Your task to perform on an android device: turn off data saver in the chrome app Image 0: 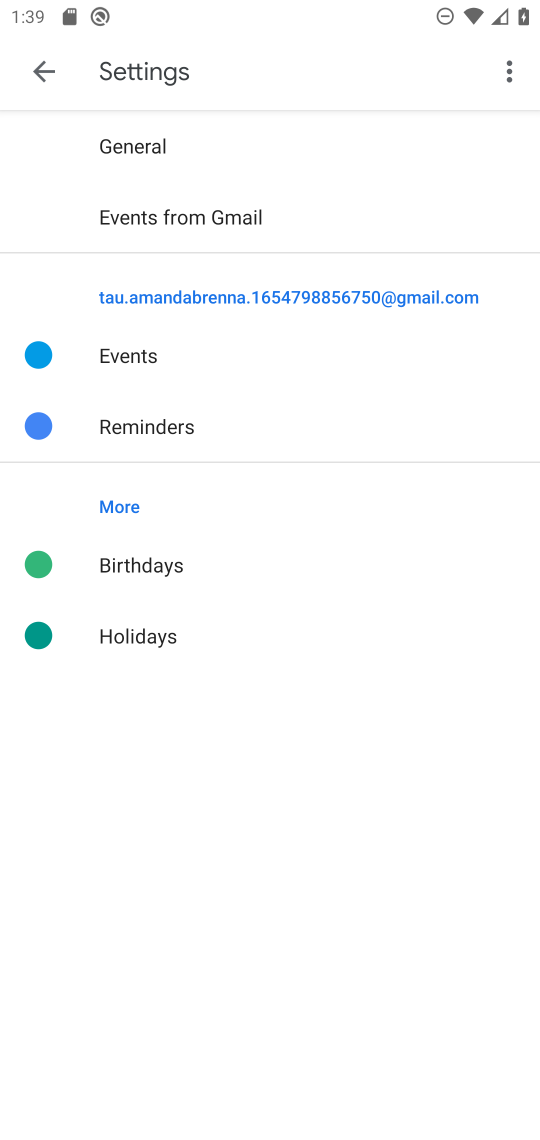
Step 0: press home button
Your task to perform on an android device: turn off data saver in the chrome app Image 1: 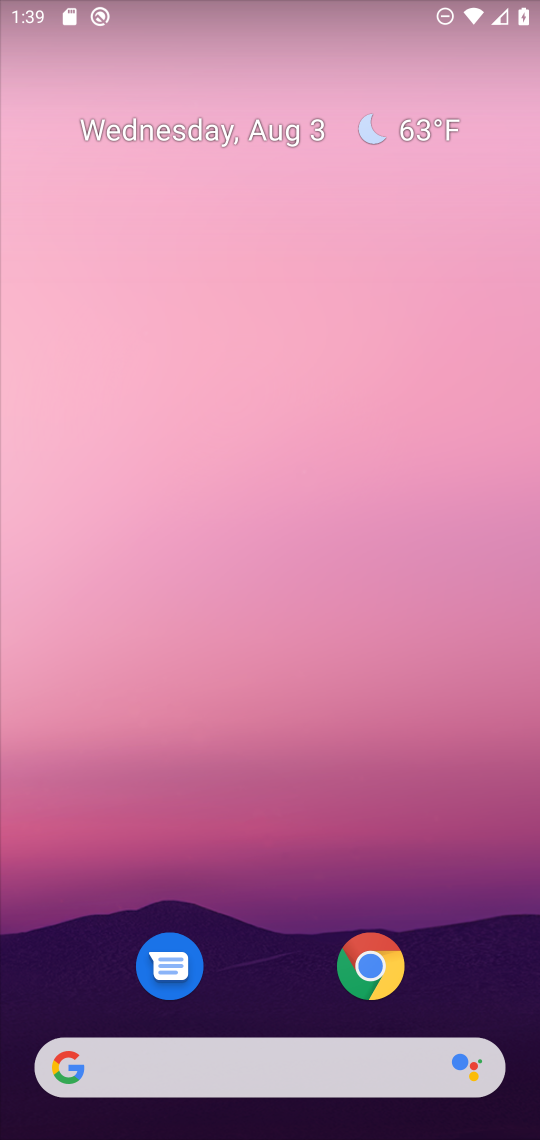
Step 1: click (333, 950)
Your task to perform on an android device: turn off data saver in the chrome app Image 2: 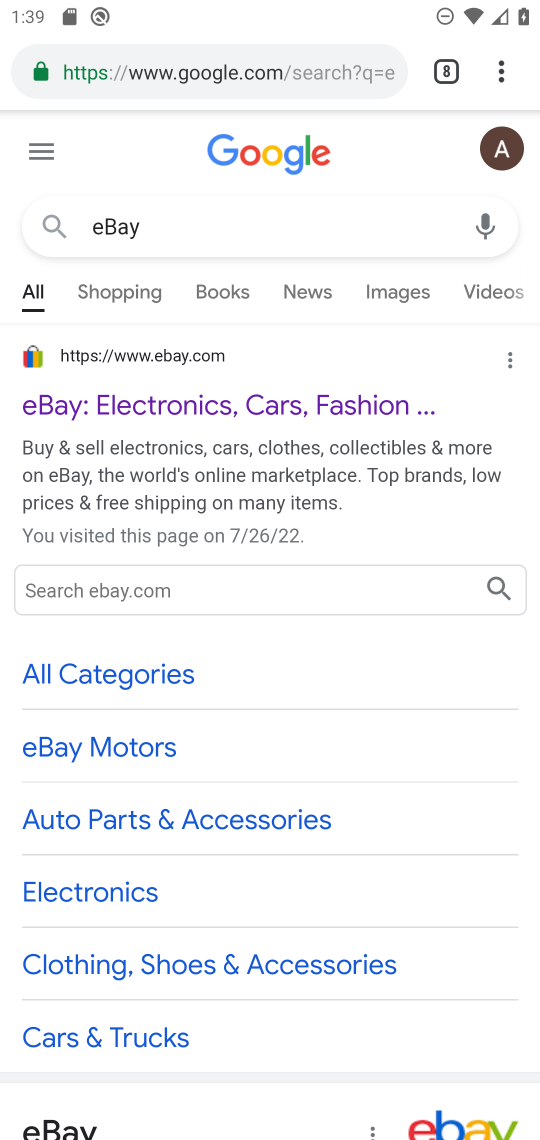
Step 2: click (499, 79)
Your task to perform on an android device: turn off data saver in the chrome app Image 3: 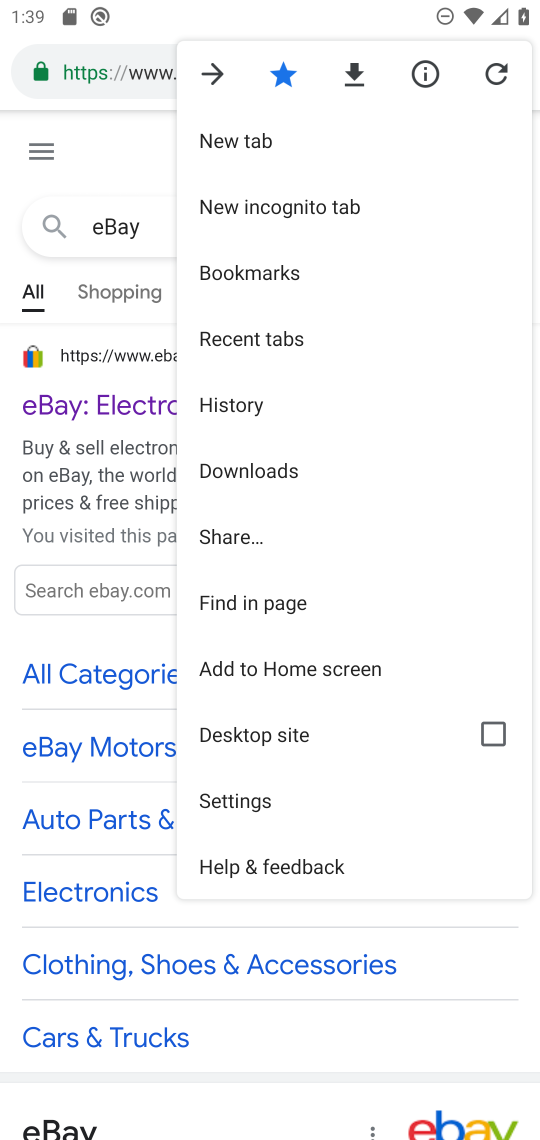
Step 3: click (250, 810)
Your task to perform on an android device: turn off data saver in the chrome app Image 4: 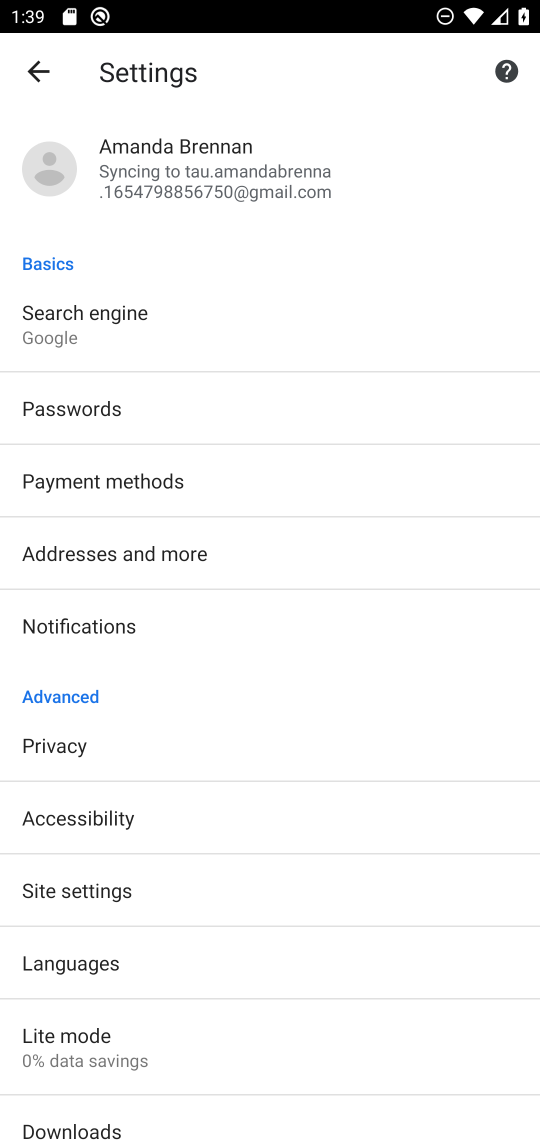
Step 4: click (131, 1063)
Your task to perform on an android device: turn off data saver in the chrome app Image 5: 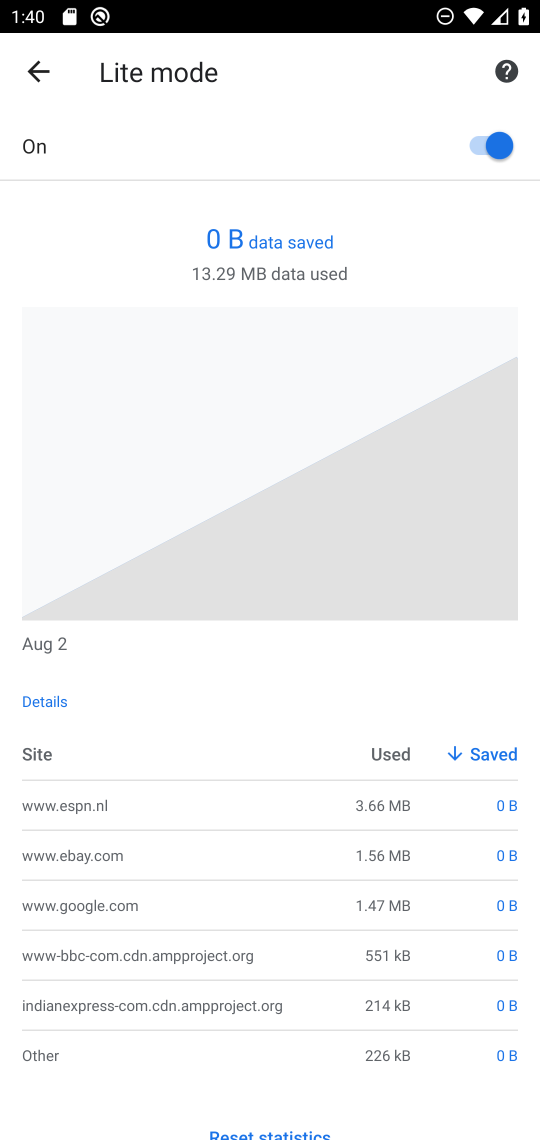
Step 5: click (499, 147)
Your task to perform on an android device: turn off data saver in the chrome app Image 6: 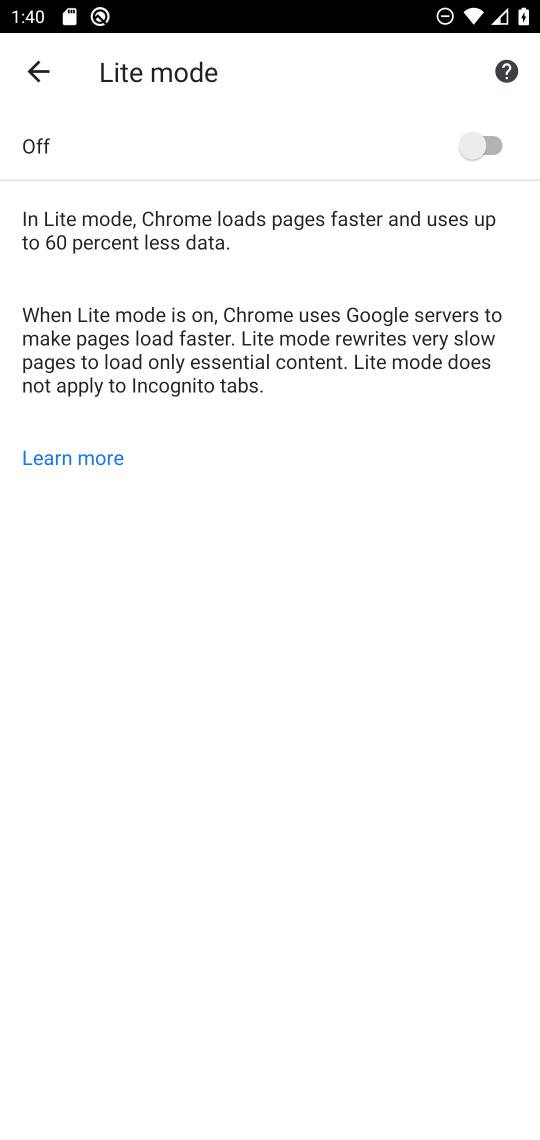
Step 6: task complete